Your task to perform on an android device: show emergency info Image 0: 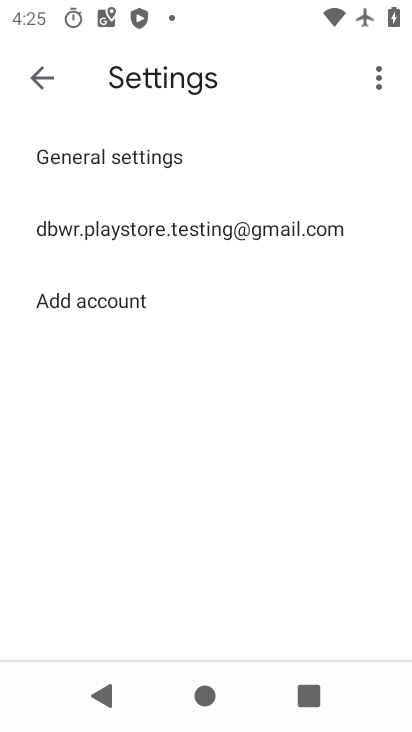
Step 0: press home button
Your task to perform on an android device: show emergency info Image 1: 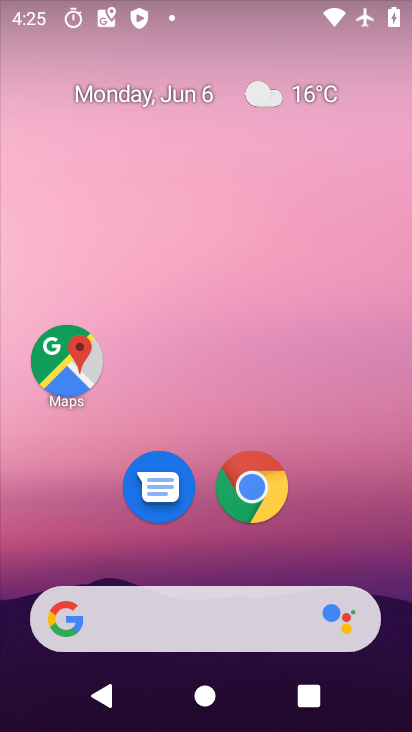
Step 1: drag from (349, 450) to (258, 137)
Your task to perform on an android device: show emergency info Image 2: 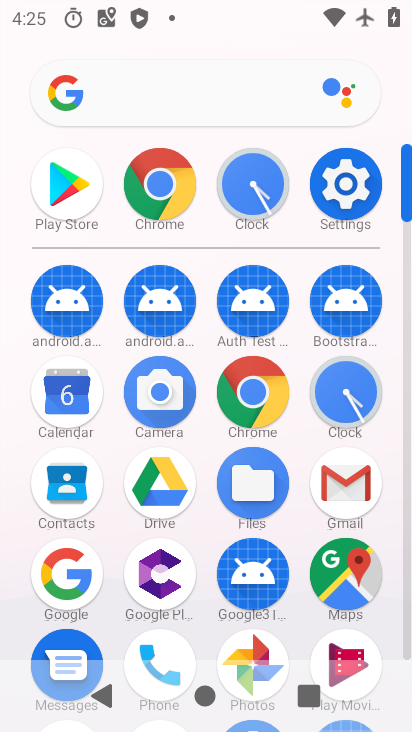
Step 2: click (350, 162)
Your task to perform on an android device: show emergency info Image 3: 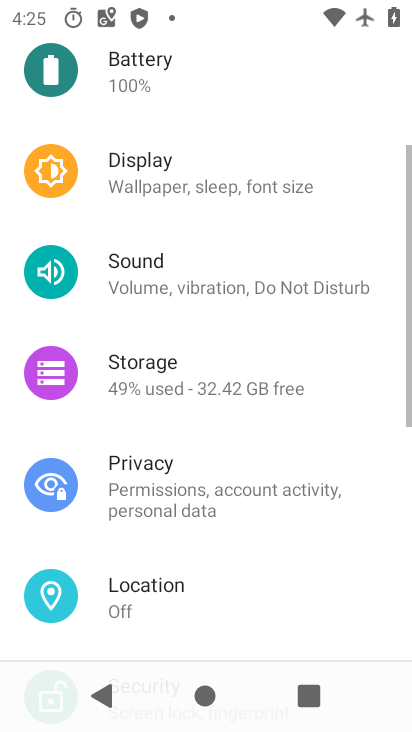
Step 3: drag from (216, 597) to (276, 76)
Your task to perform on an android device: show emergency info Image 4: 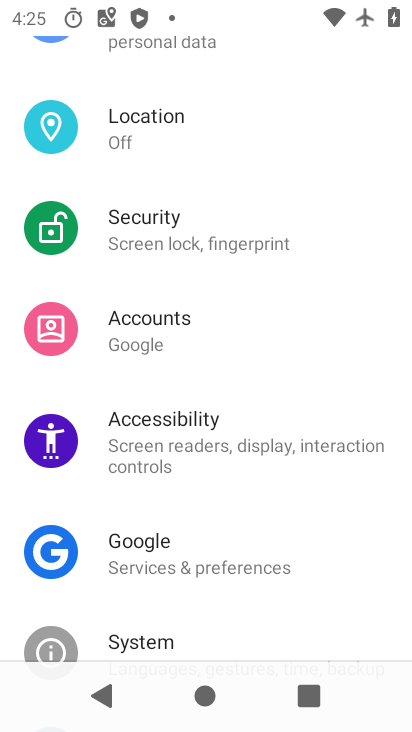
Step 4: drag from (233, 616) to (284, 155)
Your task to perform on an android device: show emergency info Image 5: 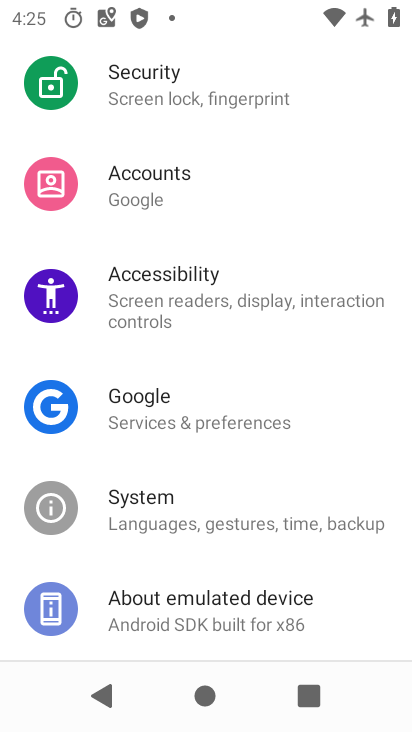
Step 5: click (226, 610)
Your task to perform on an android device: show emergency info Image 6: 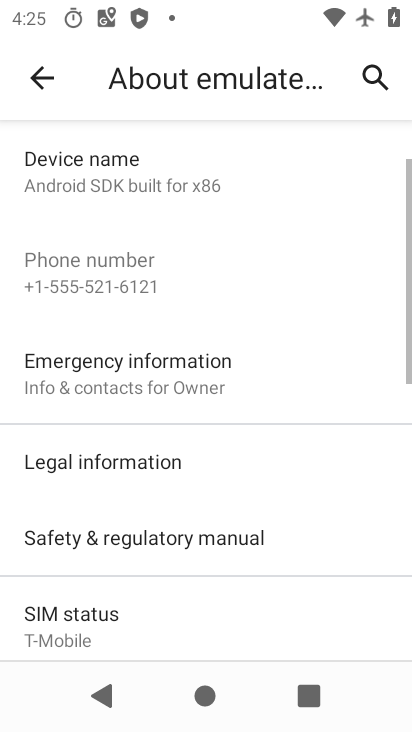
Step 6: click (169, 384)
Your task to perform on an android device: show emergency info Image 7: 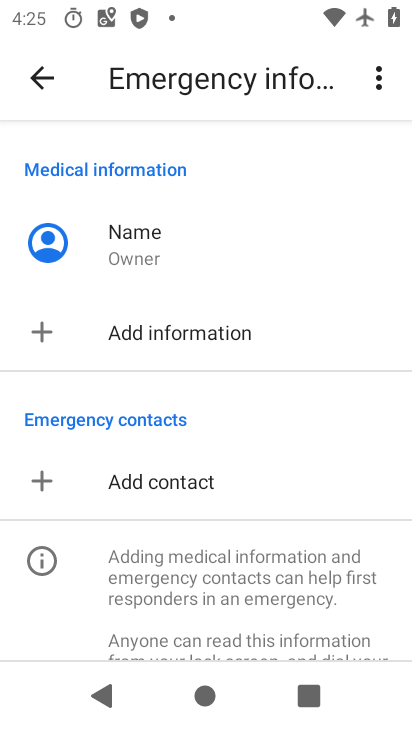
Step 7: task complete